Your task to perform on an android device: Open location settings Image 0: 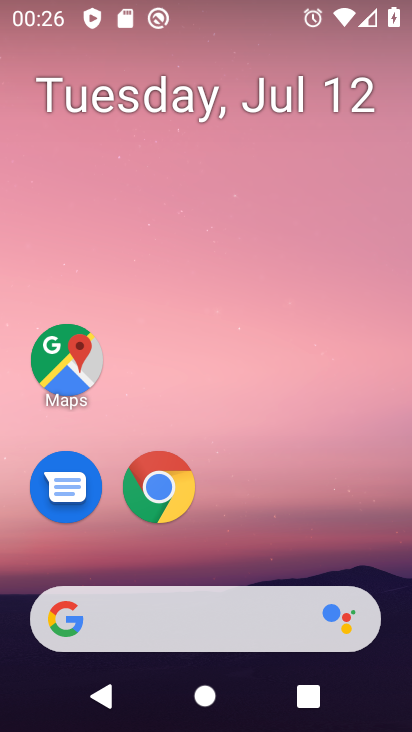
Step 0: drag from (364, 563) to (404, 286)
Your task to perform on an android device: Open location settings Image 1: 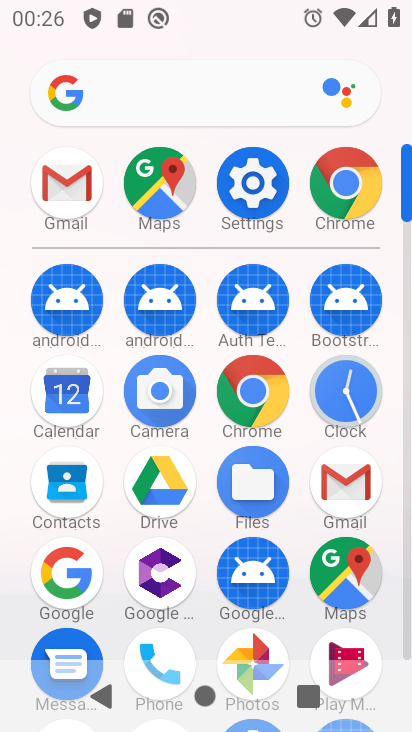
Step 1: click (248, 184)
Your task to perform on an android device: Open location settings Image 2: 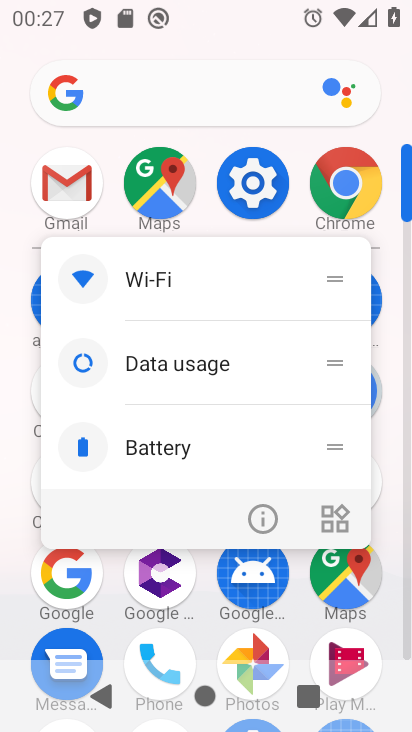
Step 2: click (248, 184)
Your task to perform on an android device: Open location settings Image 3: 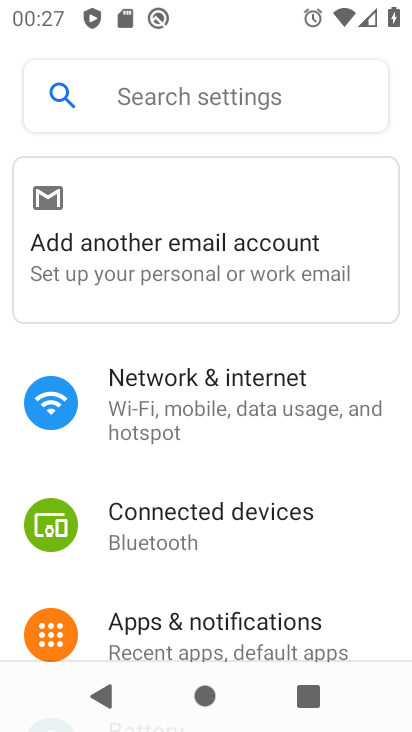
Step 3: drag from (348, 507) to (398, 331)
Your task to perform on an android device: Open location settings Image 4: 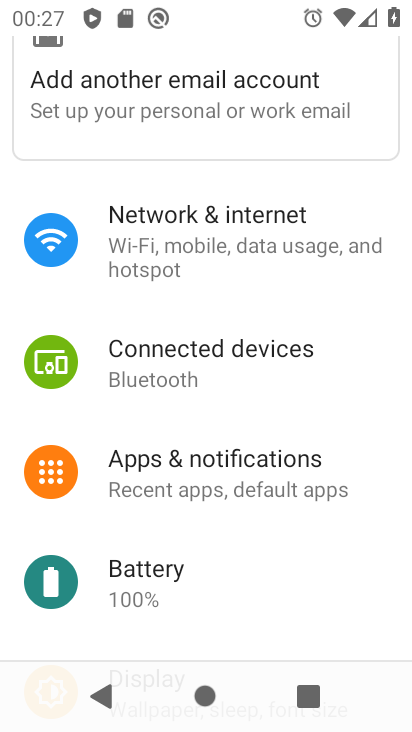
Step 4: click (338, 599)
Your task to perform on an android device: Open location settings Image 5: 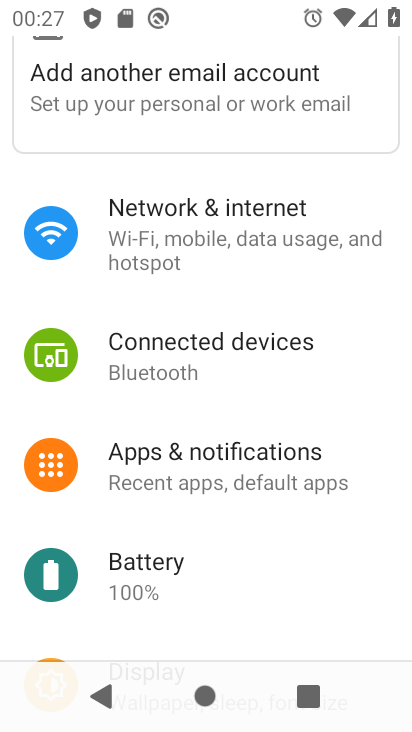
Step 5: drag from (344, 607) to (338, 364)
Your task to perform on an android device: Open location settings Image 6: 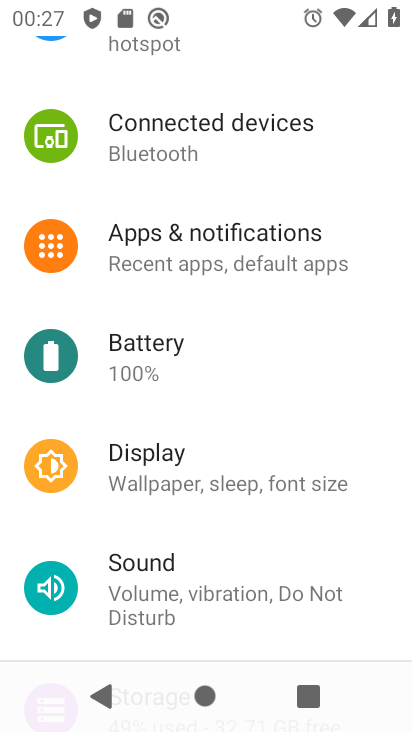
Step 6: drag from (366, 611) to (363, 471)
Your task to perform on an android device: Open location settings Image 7: 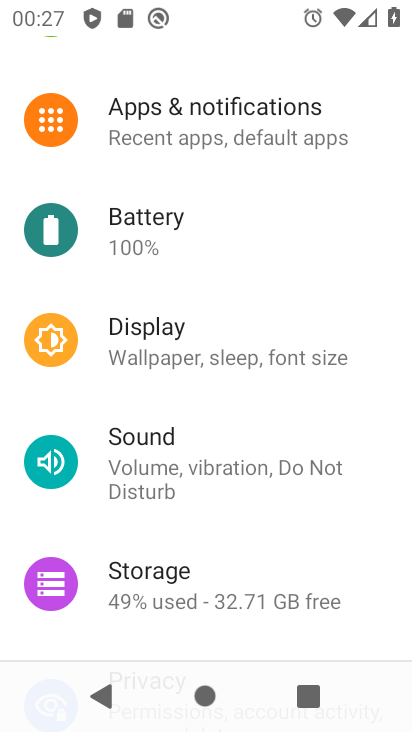
Step 7: drag from (353, 590) to (363, 357)
Your task to perform on an android device: Open location settings Image 8: 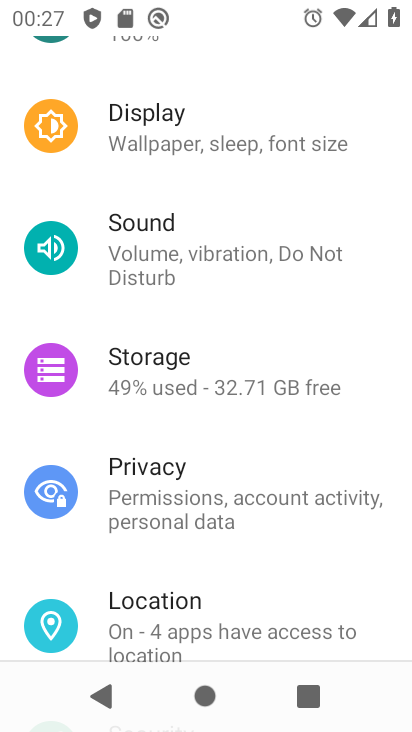
Step 8: drag from (363, 596) to (366, 439)
Your task to perform on an android device: Open location settings Image 9: 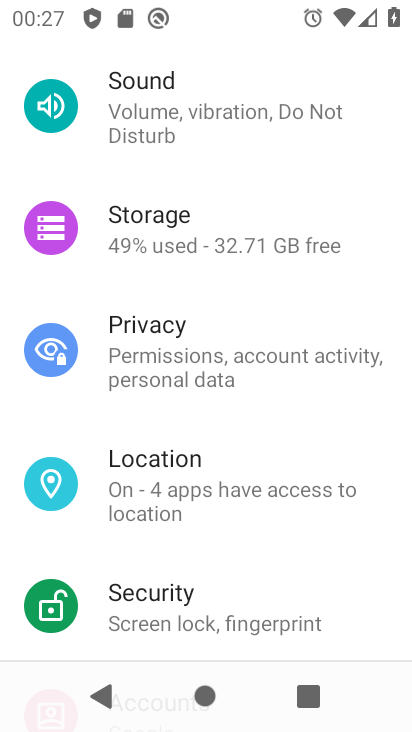
Step 9: click (281, 490)
Your task to perform on an android device: Open location settings Image 10: 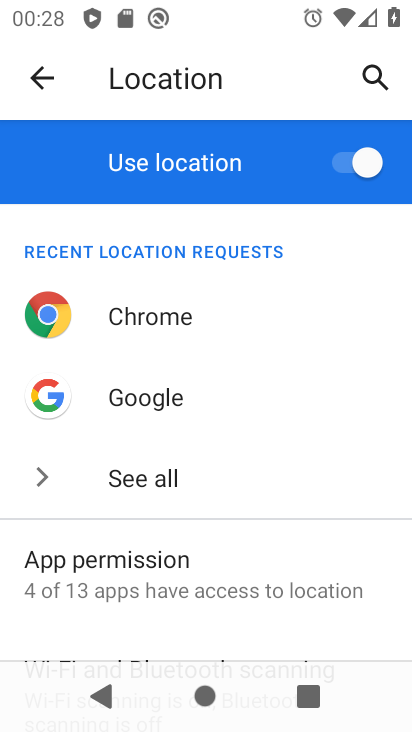
Step 10: task complete